Your task to perform on an android device: Open Google Chrome Image 0: 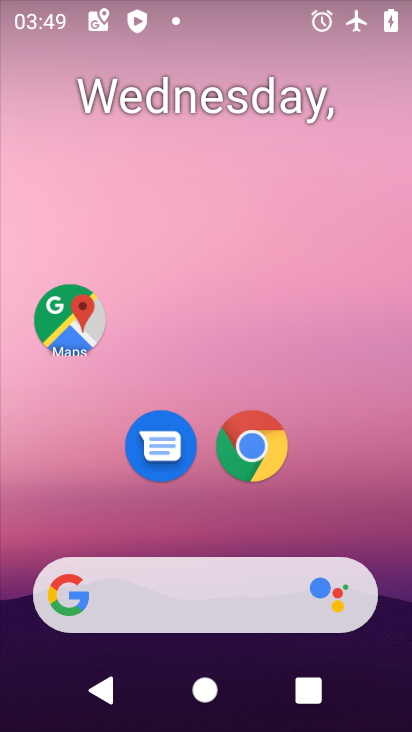
Step 0: click (241, 453)
Your task to perform on an android device: Open Google Chrome Image 1: 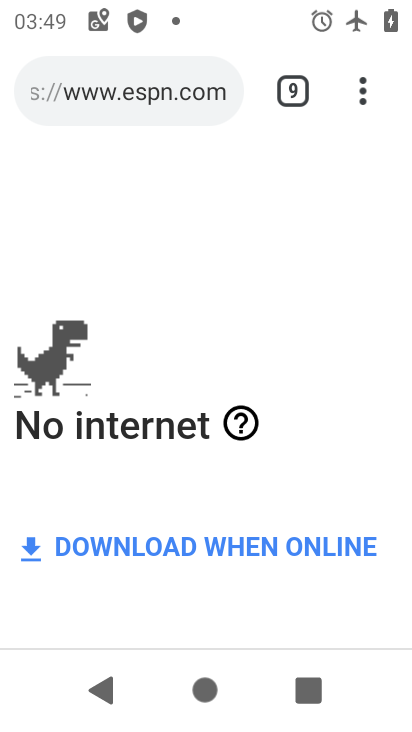
Step 1: task complete